Your task to perform on an android device: set the stopwatch Image 0: 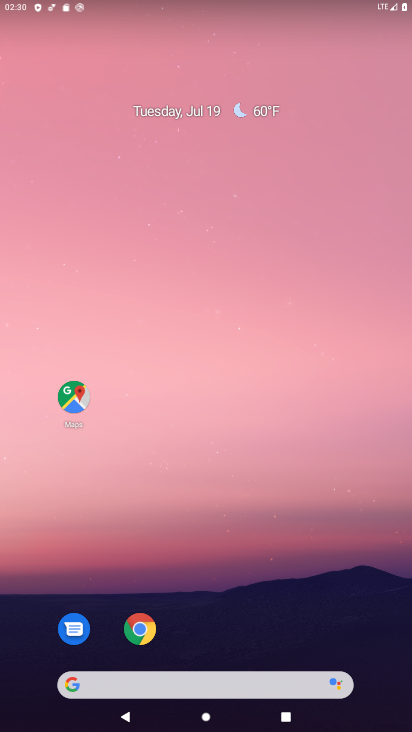
Step 0: drag from (189, 640) to (188, 53)
Your task to perform on an android device: set the stopwatch Image 1: 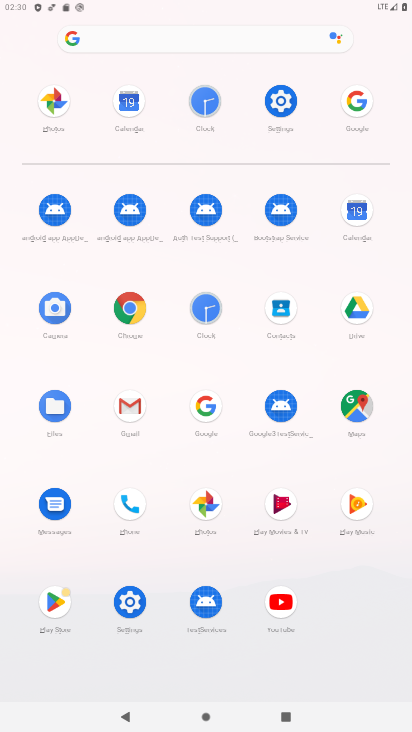
Step 1: click (205, 114)
Your task to perform on an android device: set the stopwatch Image 2: 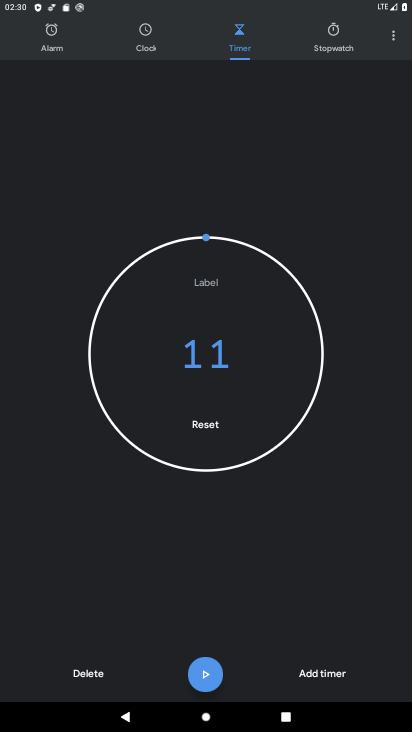
Step 2: click (316, 35)
Your task to perform on an android device: set the stopwatch Image 3: 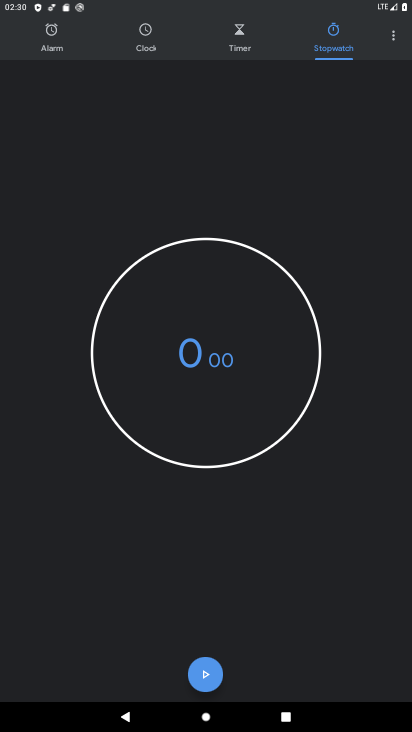
Step 3: click (204, 667)
Your task to perform on an android device: set the stopwatch Image 4: 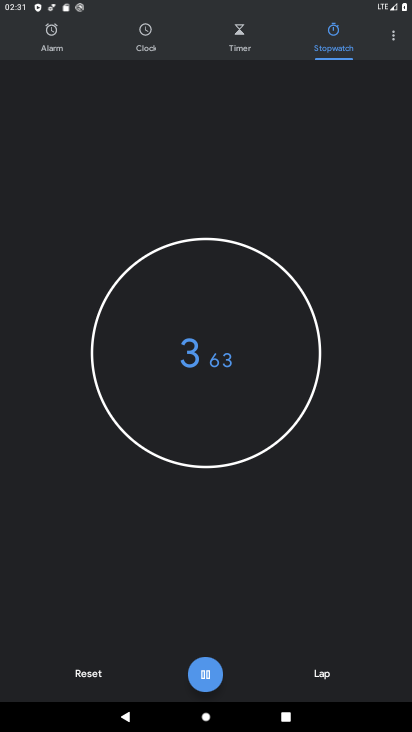
Step 4: task complete